Your task to perform on an android device: empty trash in the gmail app Image 0: 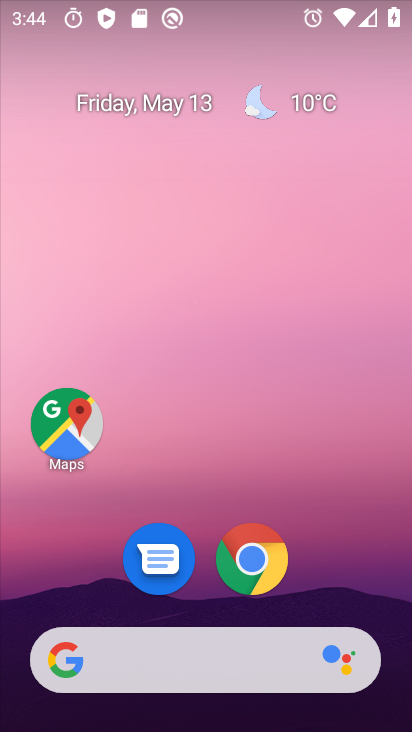
Step 0: drag from (197, 586) to (148, 197)
Your task to perform on an android device: empty trash in the gmail app Image 1: 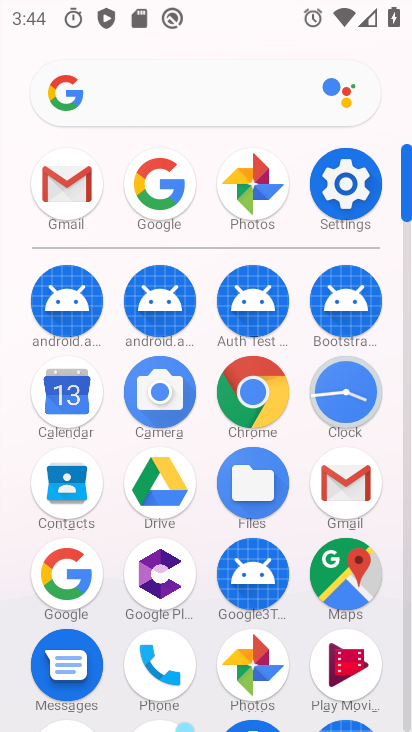
Step 1: click (84, 197)
Your task to perform on an android device: empty trash in the gmail app Image 2: 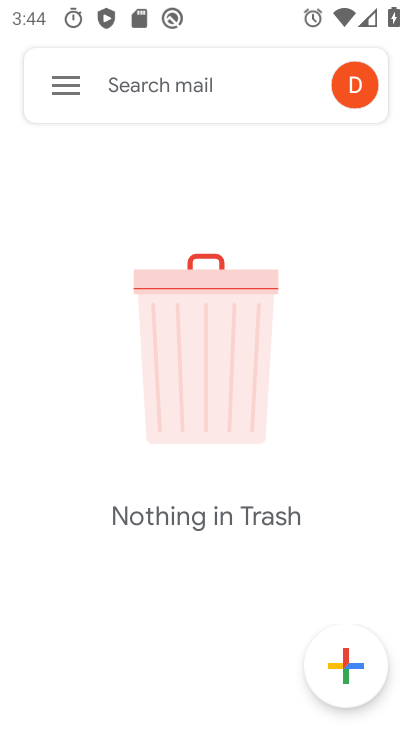
Step 2: click (67, 102)
Your task to perform on an android device: empty trash in the gmail app Image 3: 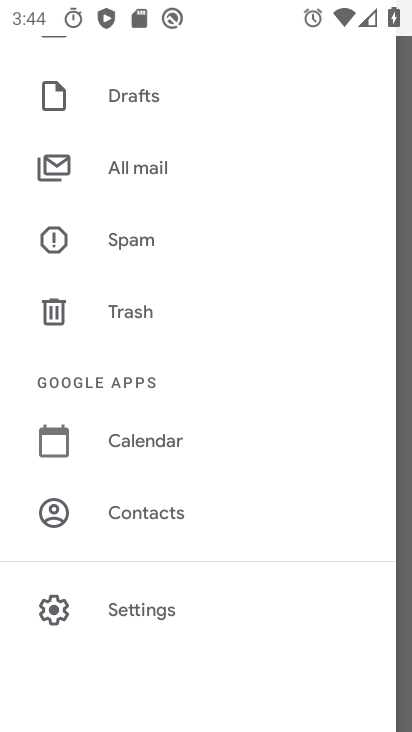
Step 3: click (143, 310)
Your task to perform on an android device: empty trash in the gmail app Image 4: 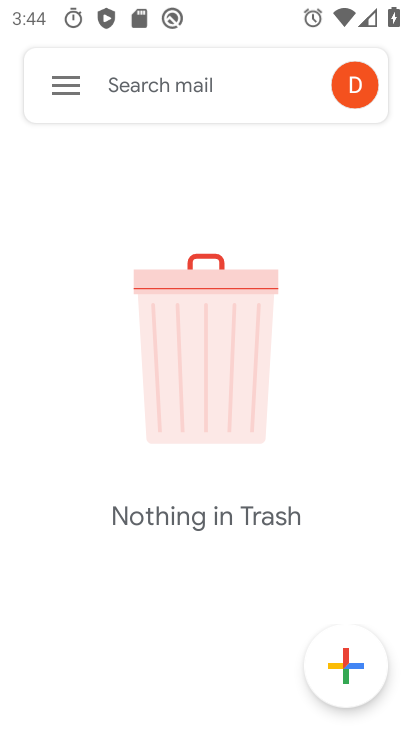
Step 4: task complete